Your task to perform on an android device: turn on data saver in the chrome app Image 0: 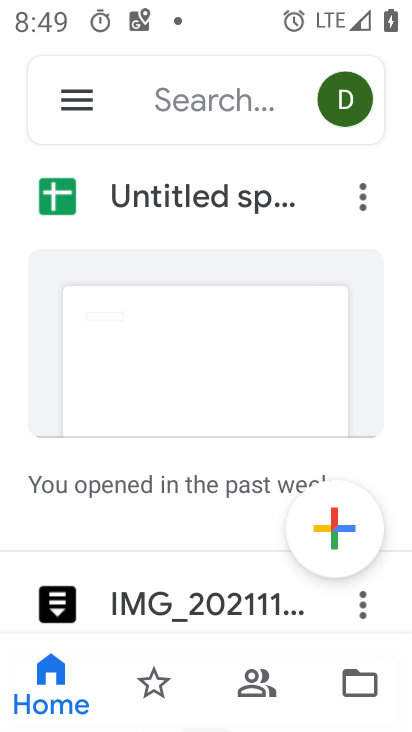
Step 0: press home button
Your task to perform on an android device: turn on data saver in the chrome app Image 1: 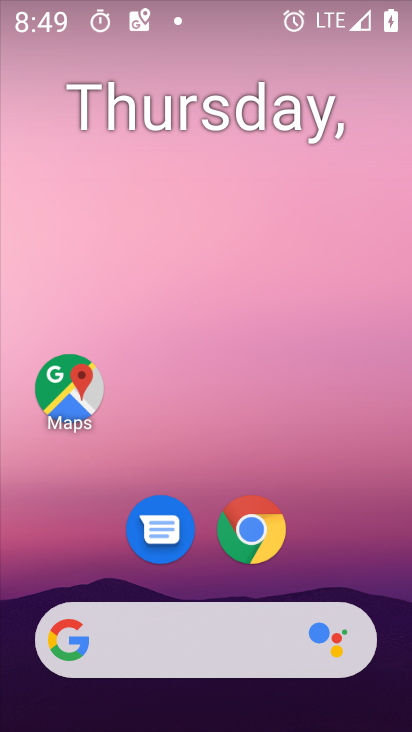
Step 1: drag from (375, 571) to (363, 192)
Your task to perform on an android device: turn on data saver in the chrome app Image 2: 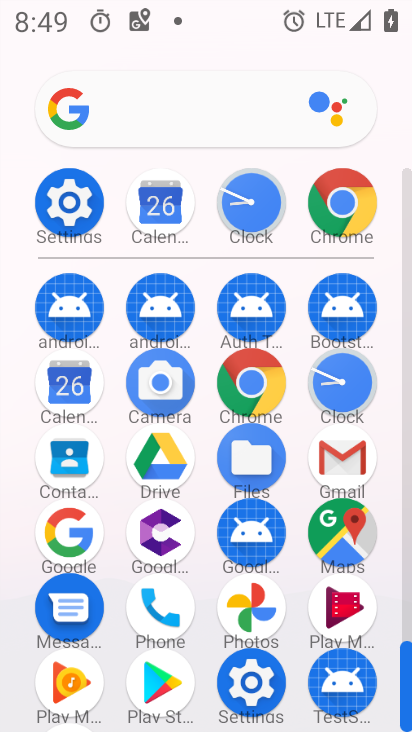
Step 2: click (271, 383)
Your task to perform on an android device: turn on data saver in the chrome app Image 3: 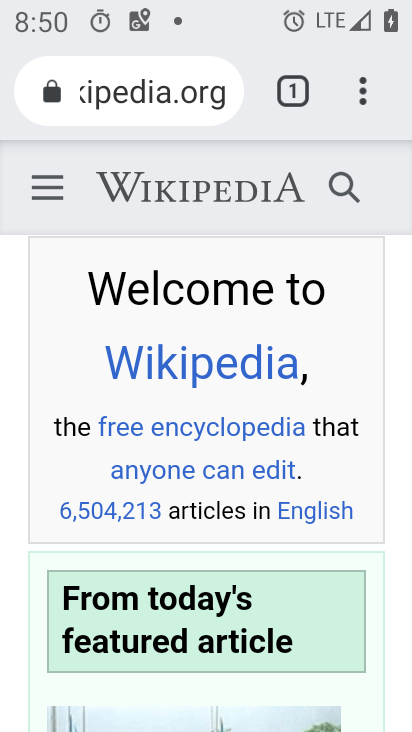
Step 3: click (365, 98)
Your task to perform on an android device: turn on data saver in the chrome app Image 4: 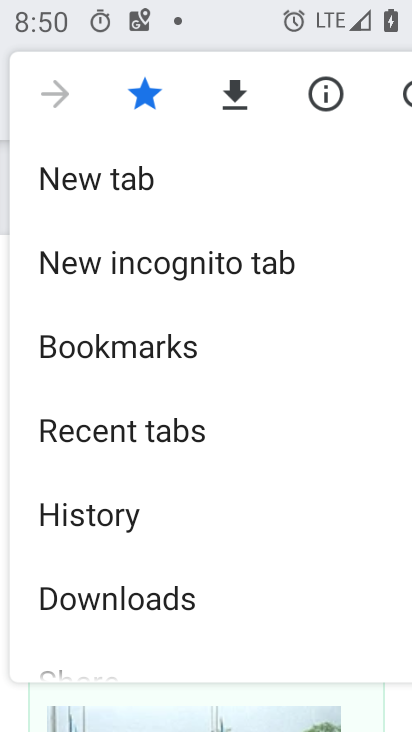
Step 4: drag from (289, 513) to (324, 359)
Your task to perform on an android device: turn on data saver in the chrome app Image 5: 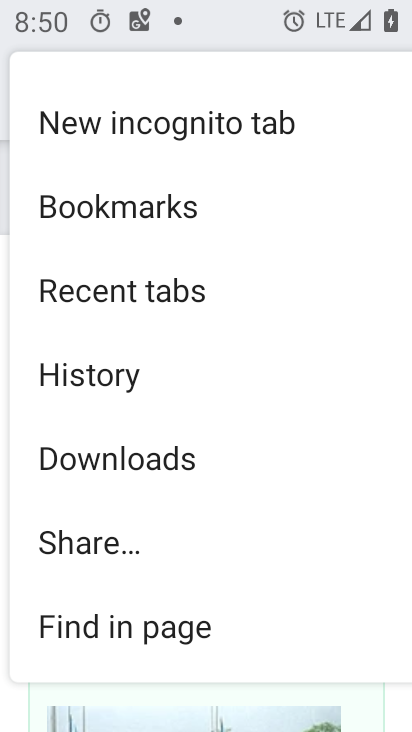
Step 5: drag from (319, 494) to (327, 383)
Your task to perform on an android device: turn on data saver in the chrome app Image 6: 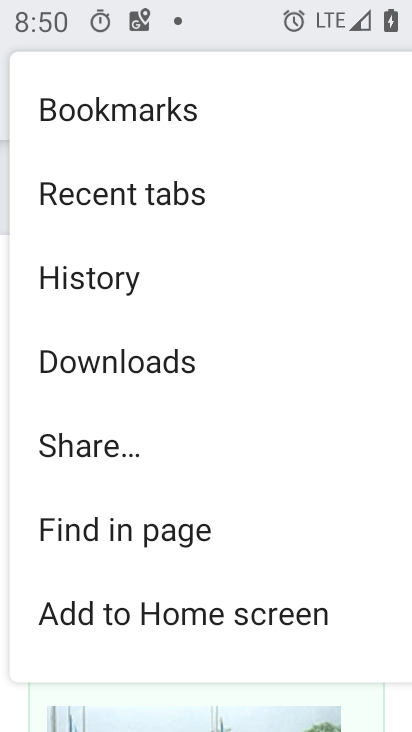
Step 6: drag from (332, 513) to (345, 384)
Your task to perform on an android device: turn on data saver in the chrome app Image 7: 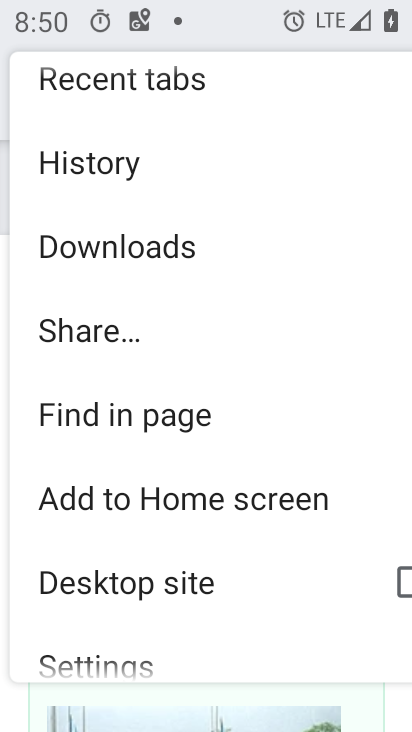
Step 7: drag from (314, 565) to (330, 456)
Your task to perform on an android device: turn on data saver in the chrome app Image 8: 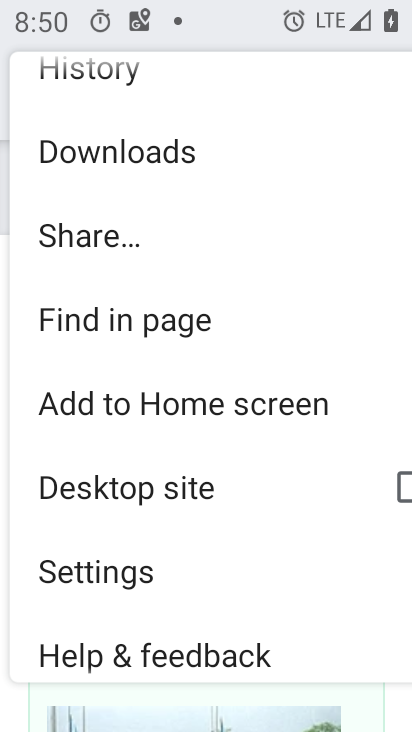
Step 8: drag from (317, 576) to (326, 440)
Your task to perform on an android device: turn on data saver in the chrome app Image 9: 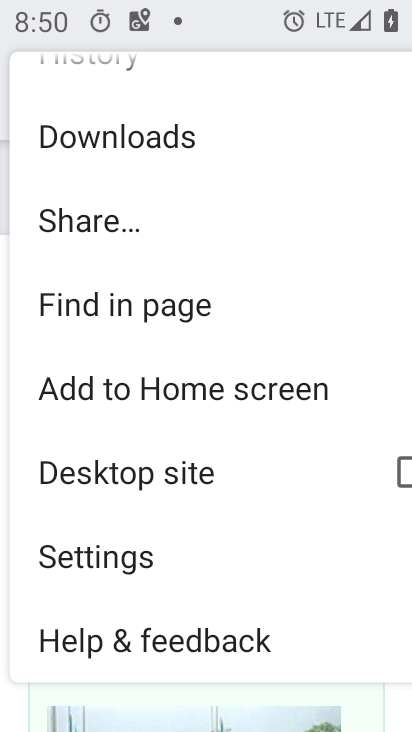
Step 9: click (147, 567)
Your task to perform on an android device: turn on data saver in the chrome app Image 10: 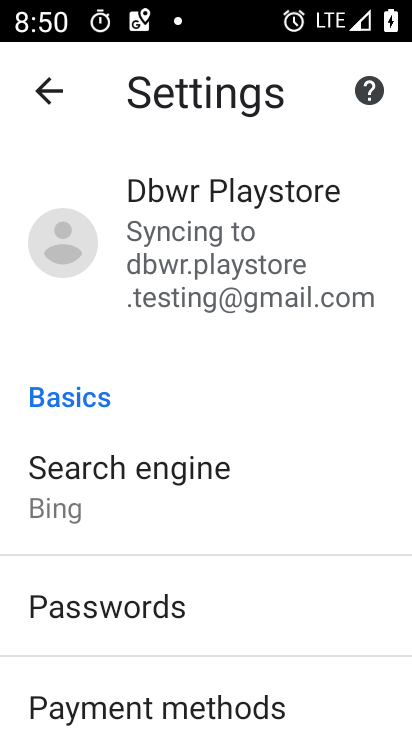
Step 10: drag from (373, 613) to (377, 492)
Your task to perform on an android device: turn on data saver in the chrome app Image 11: 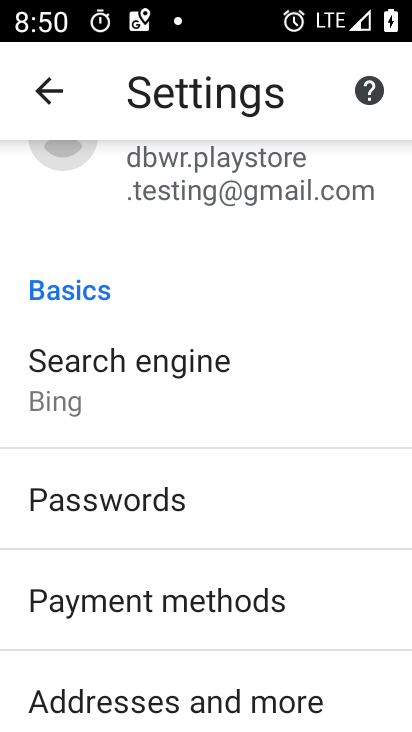
Step 11: drag from (363, 610) to (367, 467)
Your task to perform on an android device: turn on data saver in the chrome app Image 12: 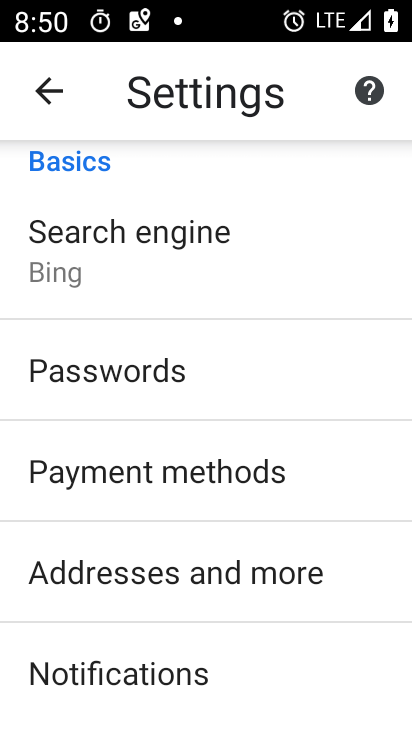
Step 12: drag from (356, 640) to (363, 522)
Your task to perform on an android device: turn on data saver in the chrome app Image 13: 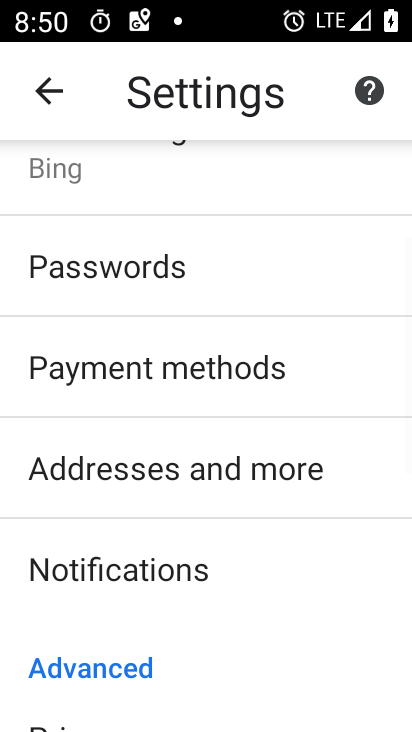
Step 13: drag from (347, 645) to (354, 499)
Your task to perform on an android device: turn on data saver in the chrome app Image 14: 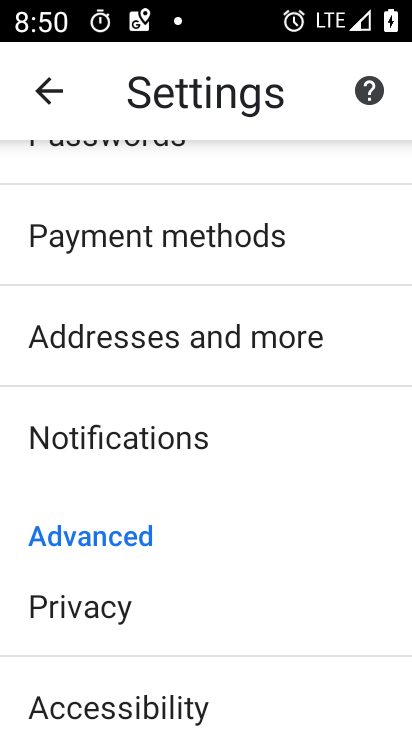
Step 14: drag from (338, 615) to (339, 515)
Your task to perform on an android device: turn on data saver in the chrome app Image 15: 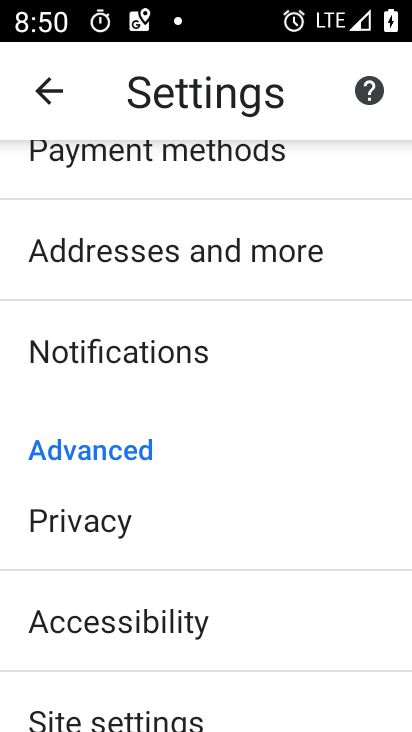
Step 15: drag from (314, 639) to (319, 465)
Your task to perform on an android device: turn on data saver in the chrome app Image 16: 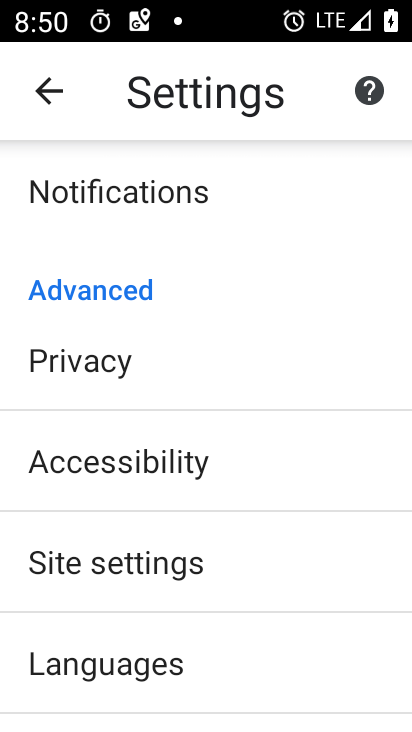
Step 16: drag from (319, 561) to (324, 449)
Your task to perform on an android device: turn on data saver in the chrome app Image 17: 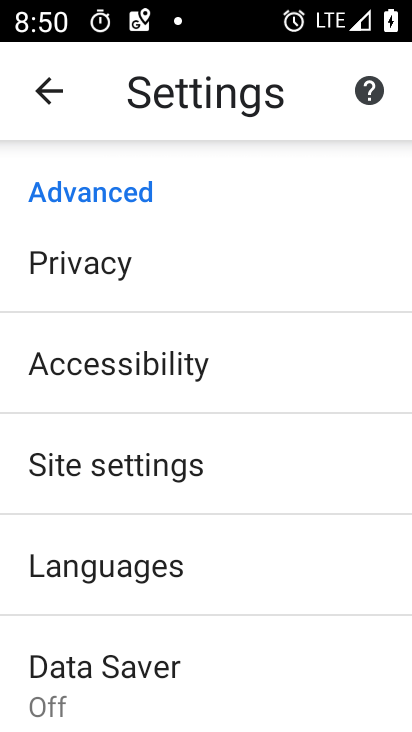
Step 17: drag from (319, 629) to (326, 477)
Your task to perform on an android device: turn on data saver in the chrome app Image 18: 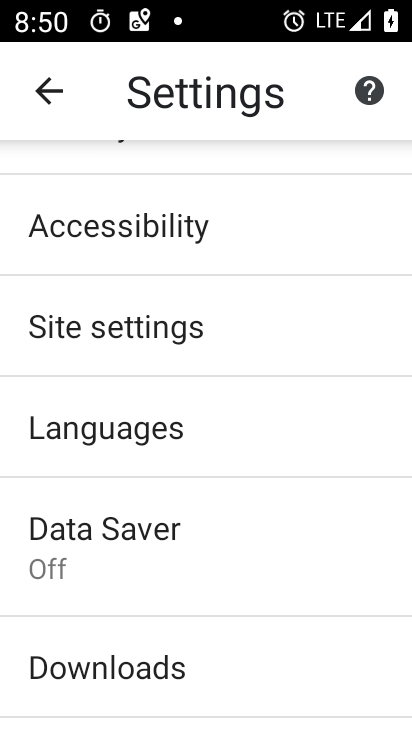
Step 18: click (271, 557)
Your task to perform on an android device: turn on data saver in the chrome app Image 19: 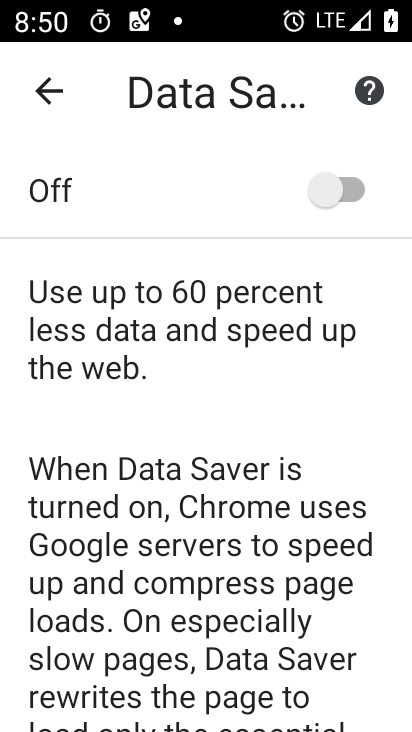
Step 19: click (346, 197)
Your task to perform on an android device: turn on data saver in the chrome app Image 20: 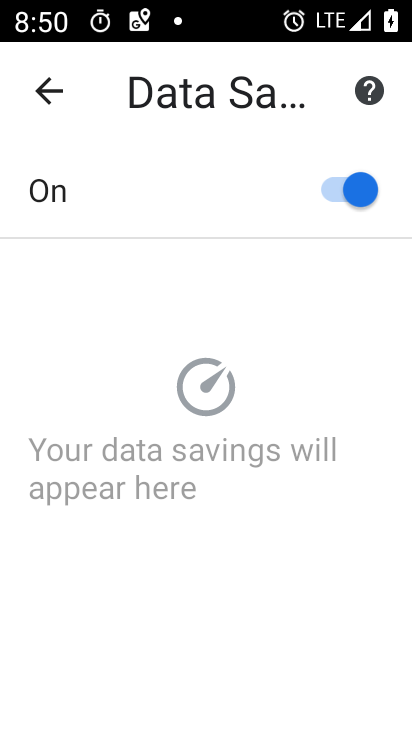
Step 20: task complete